Your task to perform on an android device: When is my next meeting? Image 0: 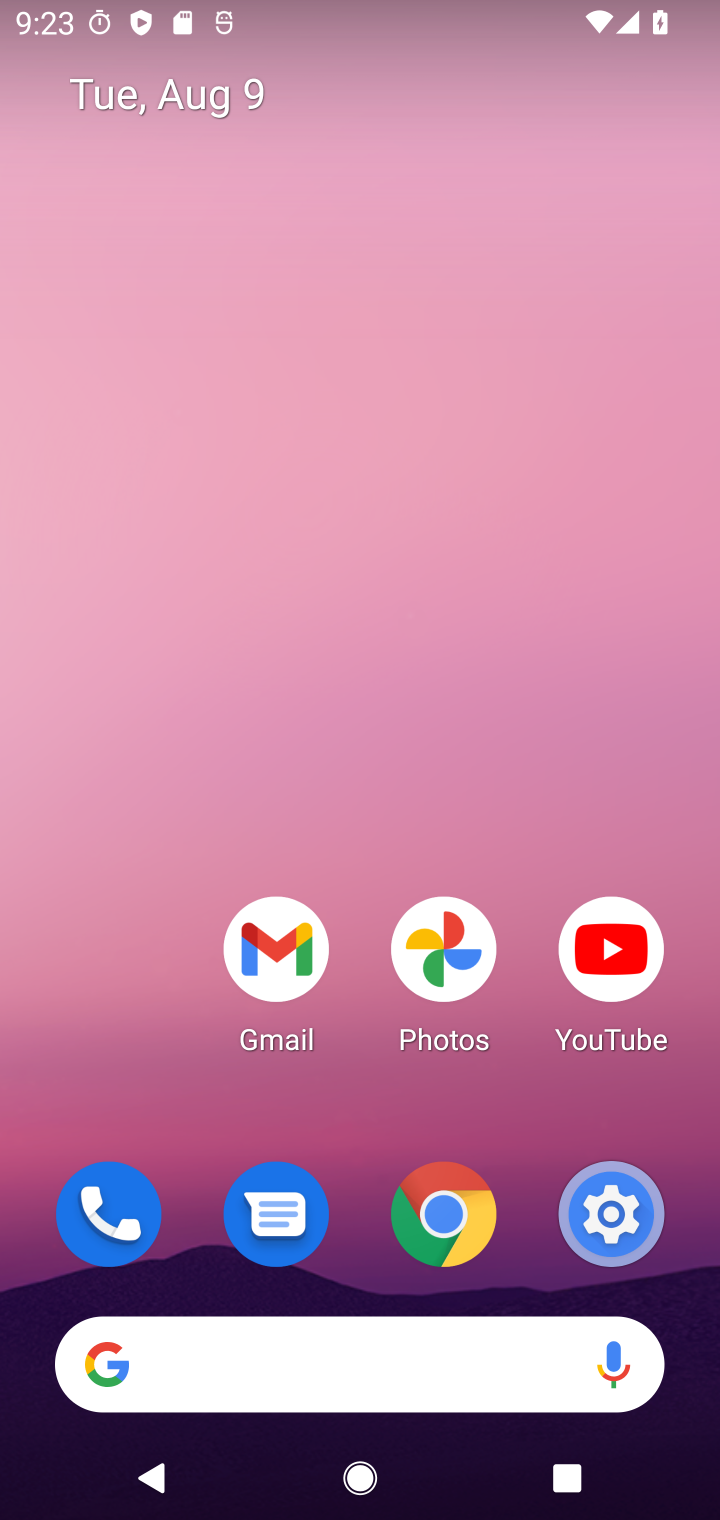
Step 0: drag from (57, 1442) to (290, 684)
Your task to perform on an android device: When is my next meeting? Image 1: 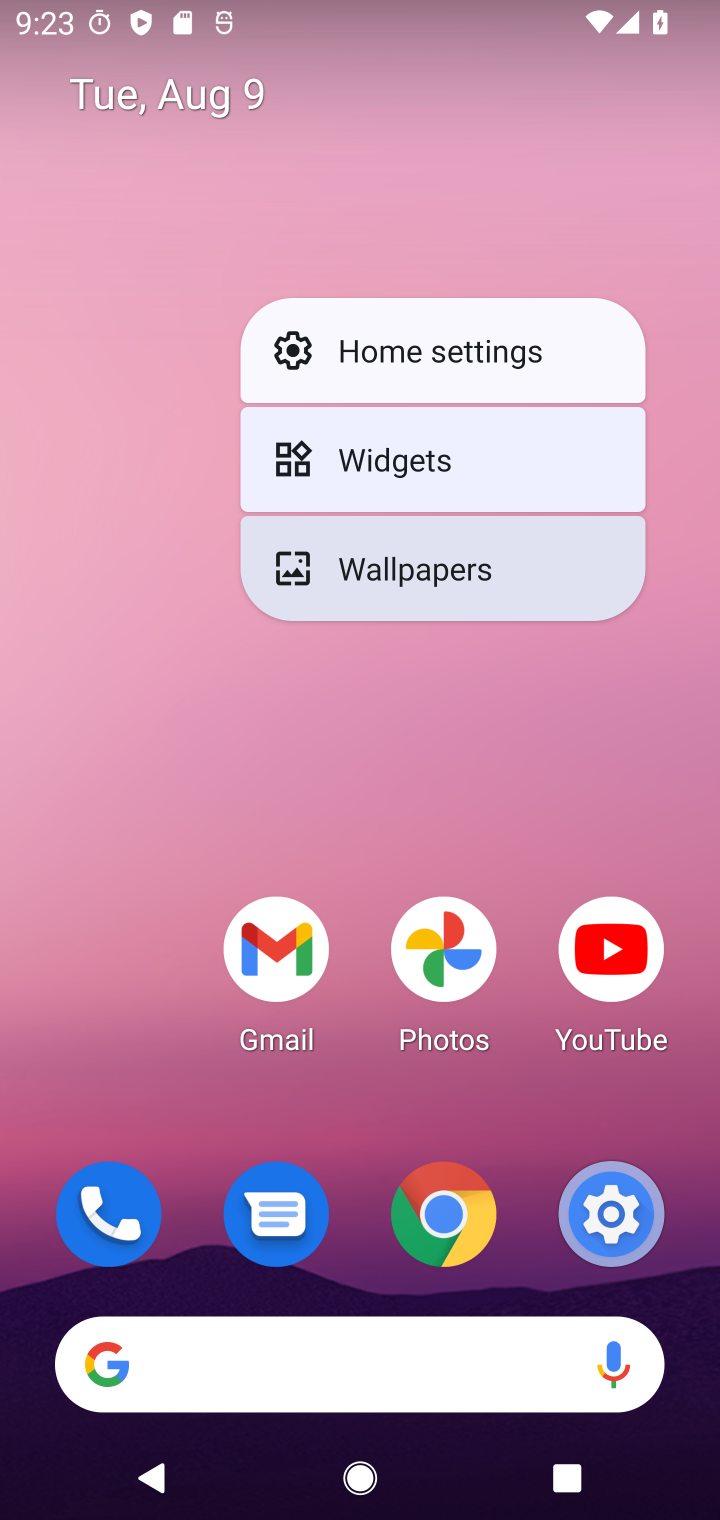
Step 1: drag from (70, 1384) to (276, 571)
Your task to perform on an android device: When is my next meeting? Image 2: 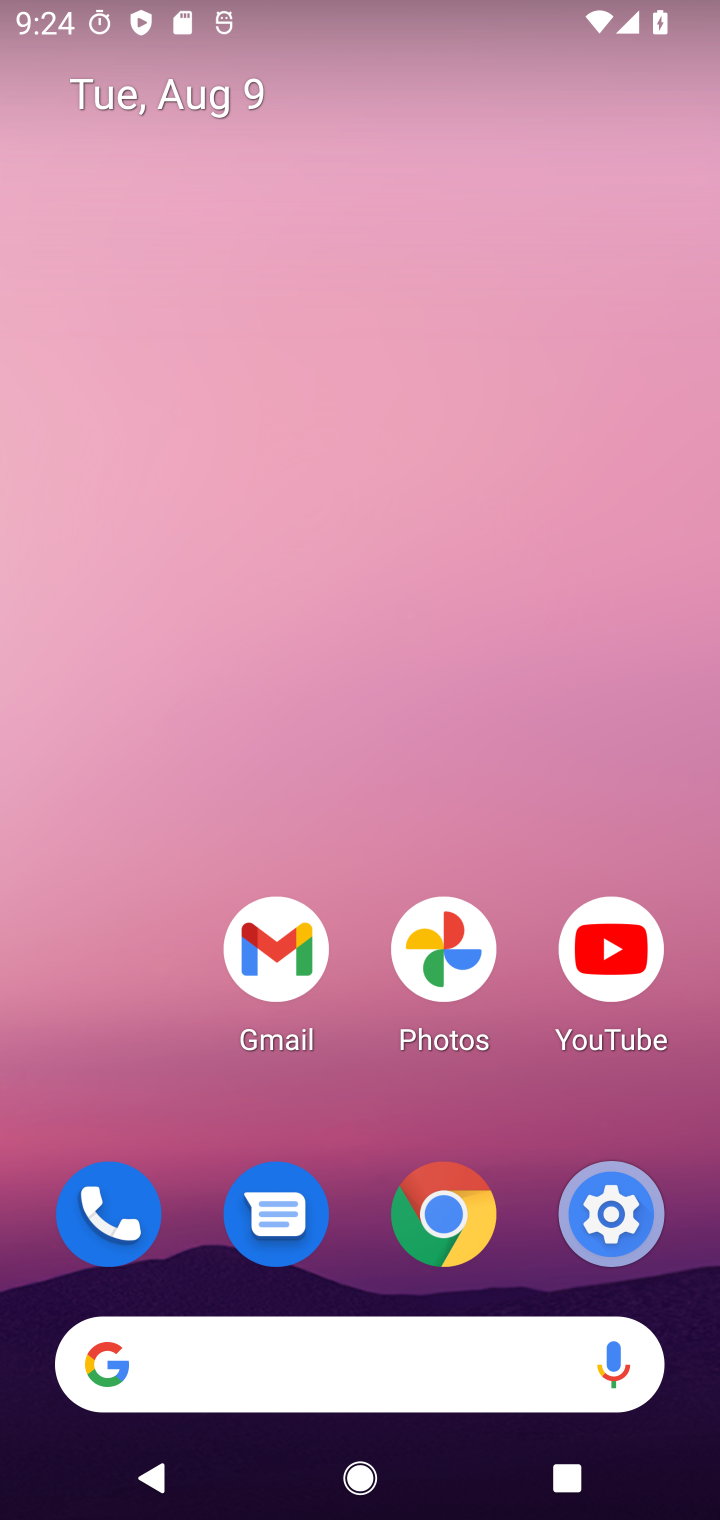
Step 2: drag from (74, 1272) to (339, 544)
Your task to perform on an android device: When is my next meeting? Image 3: 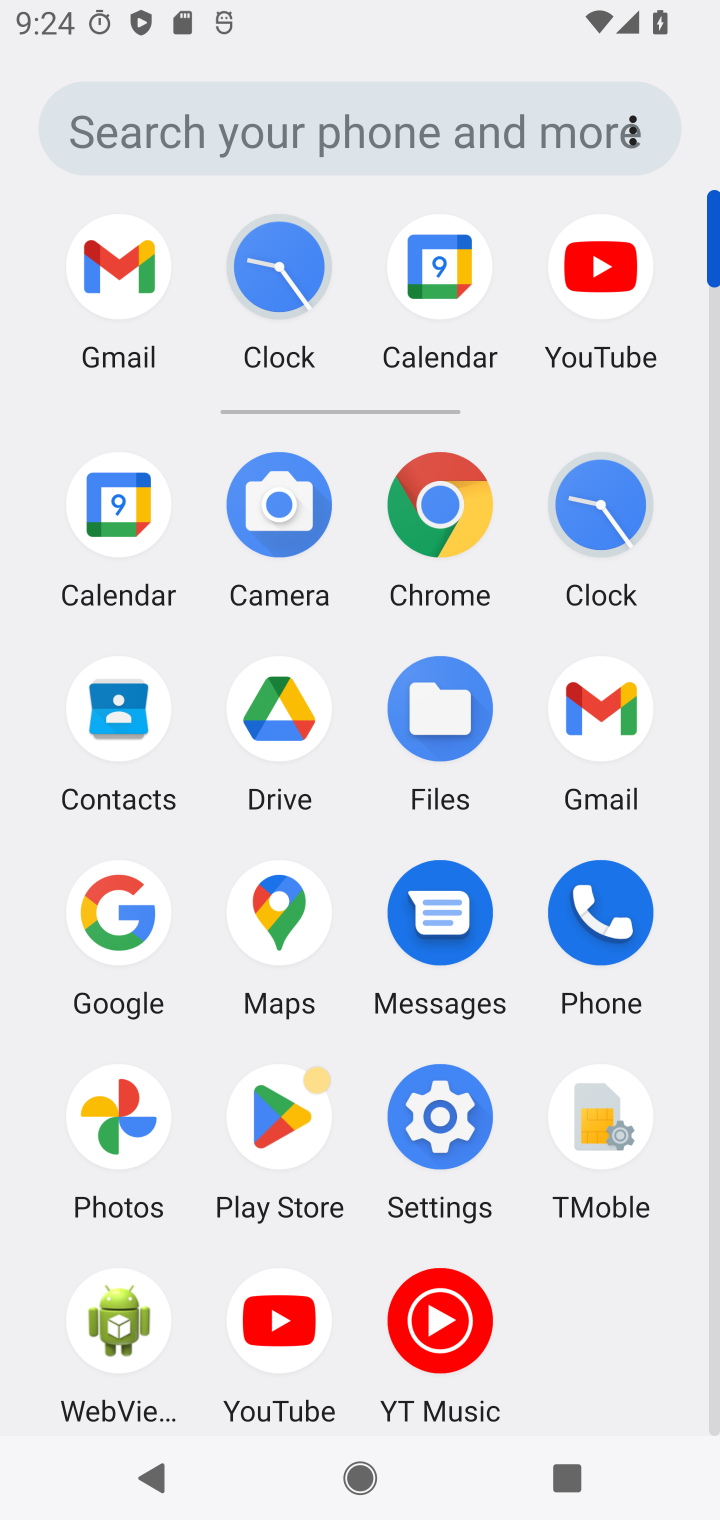
Step 3: click (127, 554)
Your task to perform on an android device: When is my next meeting? Image 4: 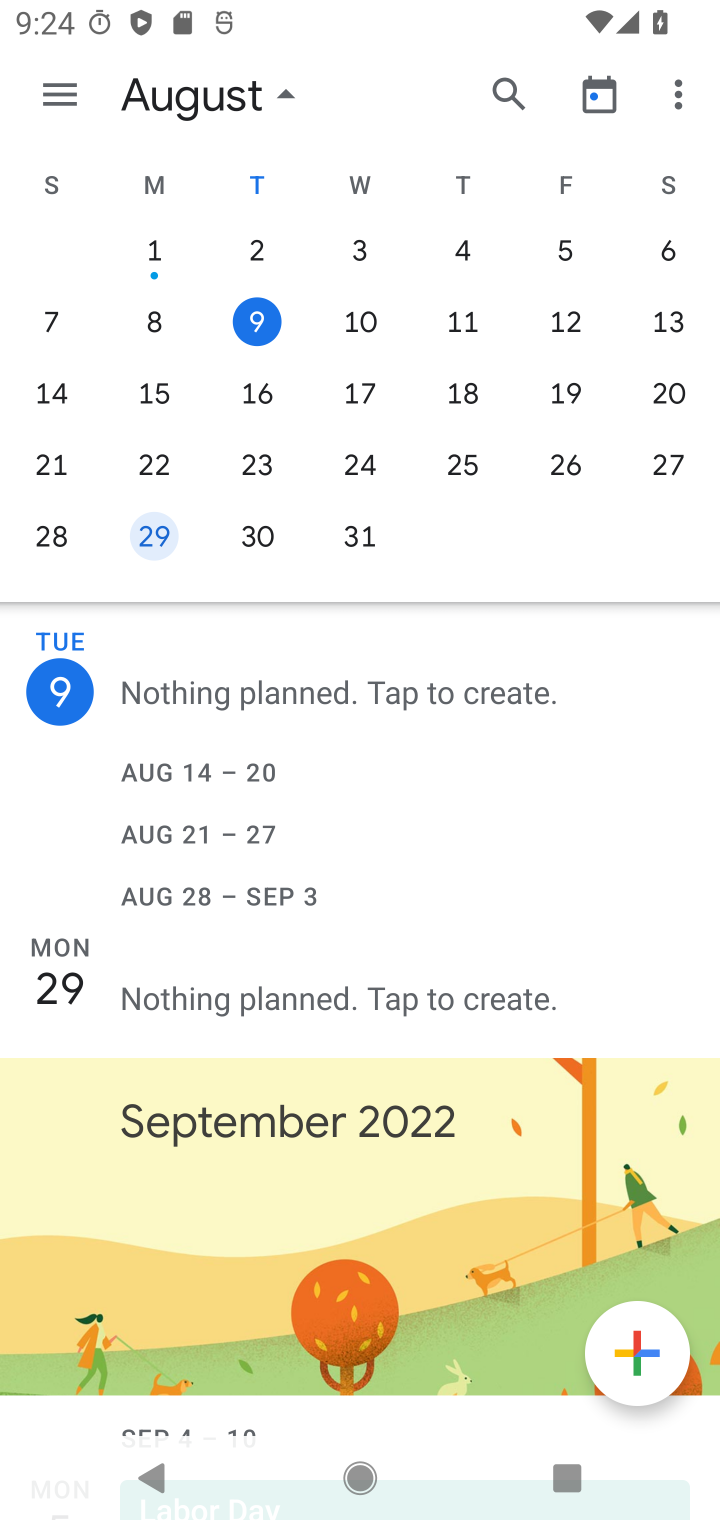
Step 4: task complete